Your task to perform on an android device: turn smart compose on in the gmail app Image 0: 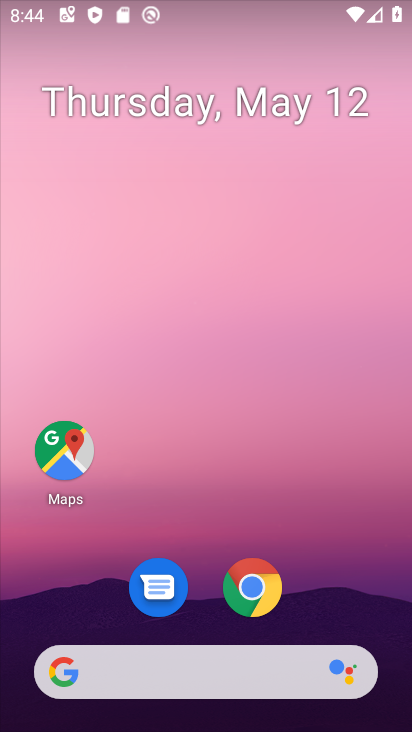
Step 0: drag from (337, 613) to (370, 239)
Your task to perform on an android device: turn smart compose on in the gmail app Image 1: 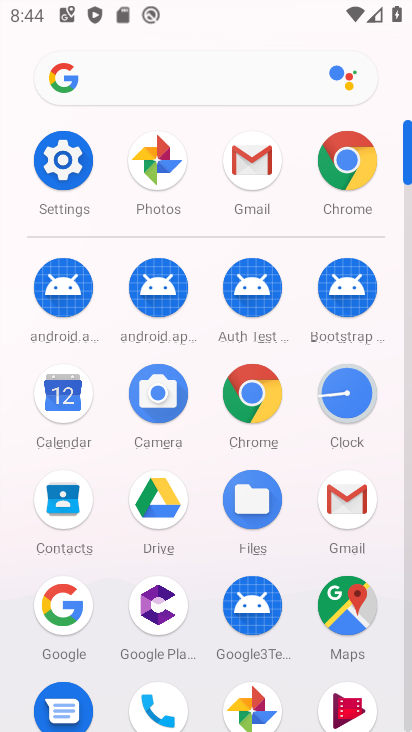
Step 1: click (342, 503)
Your task to perform on an android device: turn smart compose on in the gmail app Image 2: 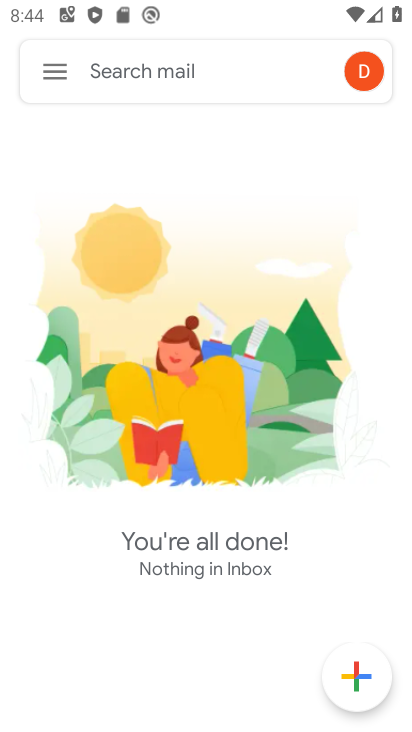
Step 2: click (52, 68)
Your task to perform on an android device: turn smart compose on in the gmail app Image 3: 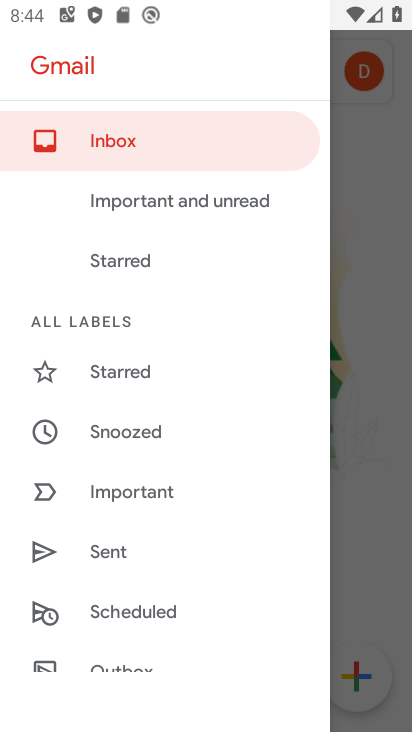
Step 3: drag from (180, 563) to (242, 103)
Your task to perform on an android device: turn smart compose on in the gmail app Image 4: 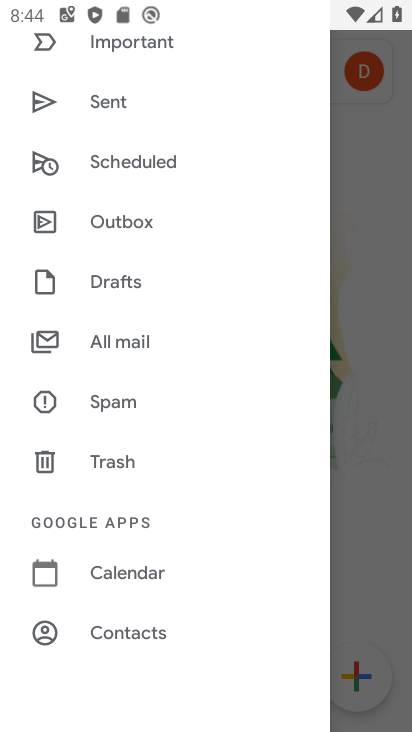
Step 4: drag from (162, 545) to (206, 250)
Your task to perform on an android device: turn smart compose on in the gmail app Image 5: 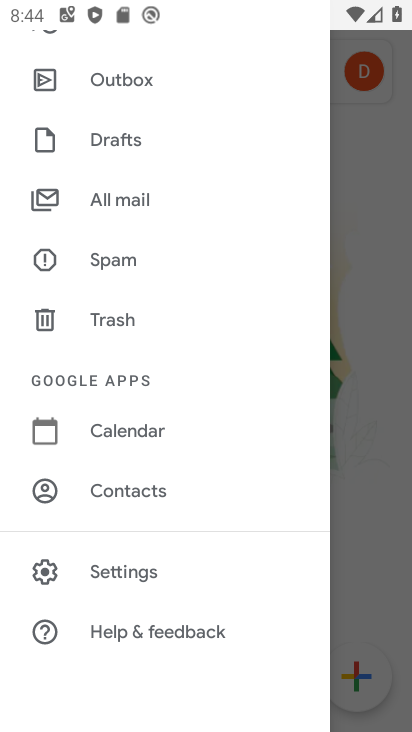
Step 5: click (126, 574)
Your task to perform on an android device: turn smart compose on in the gmail app Image 6: 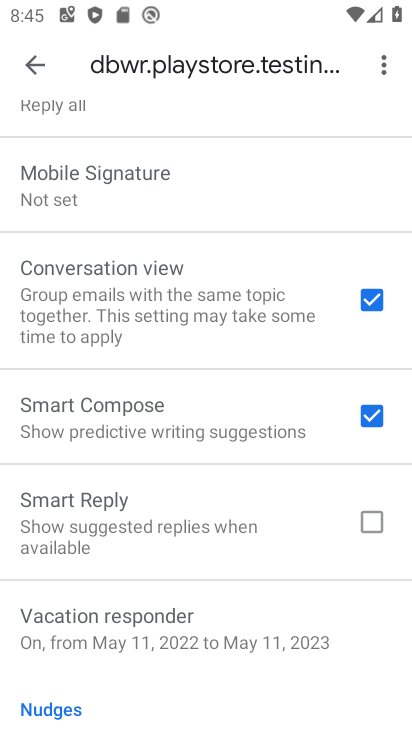
Step 6: task complete